Your task to perform on an android device: Open Wikipedia Image 0: 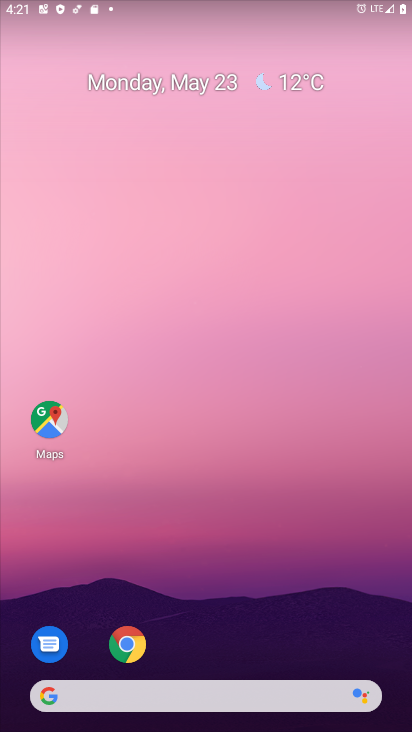
Step 0: click (133, 655)
Your task to perform on an android device: Open Wikipedia Image 1: 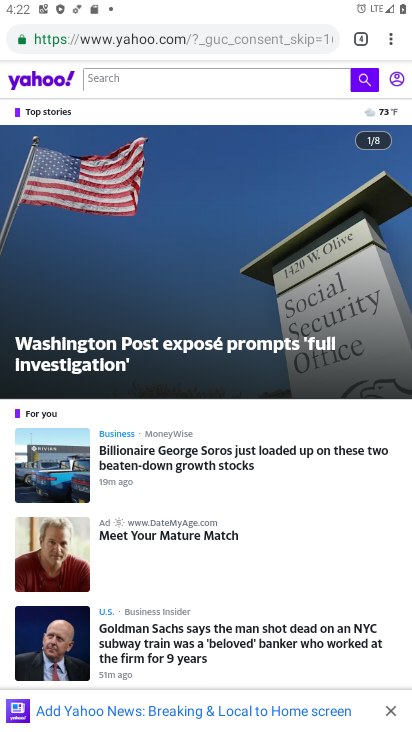
Step 1: click (364, 42)
Your task to perform on an android device: Open Wikipedia Image 2: 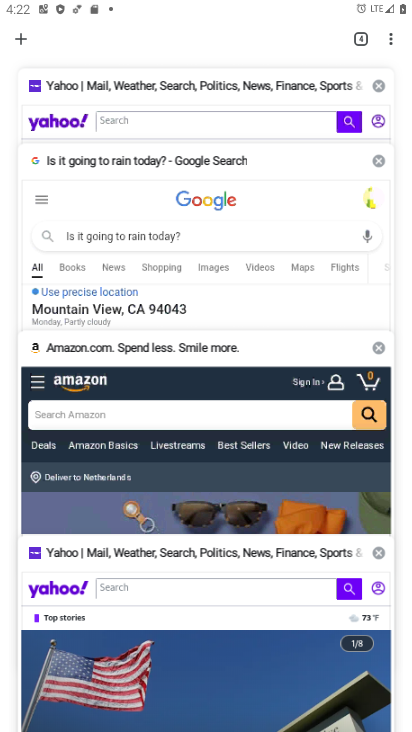
Step 2: click (19, 46)
Your task to perform on an android device: Open Wikipedia Image 3: 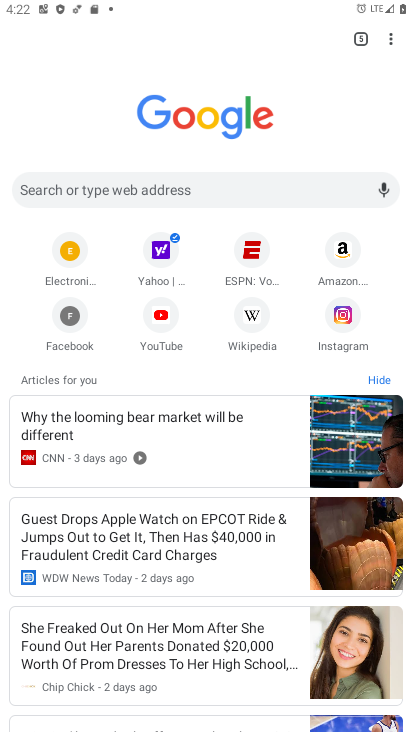
Step 3: click (252, 323)
Your task to perform on an android device: Open Wikipedia Image 4: 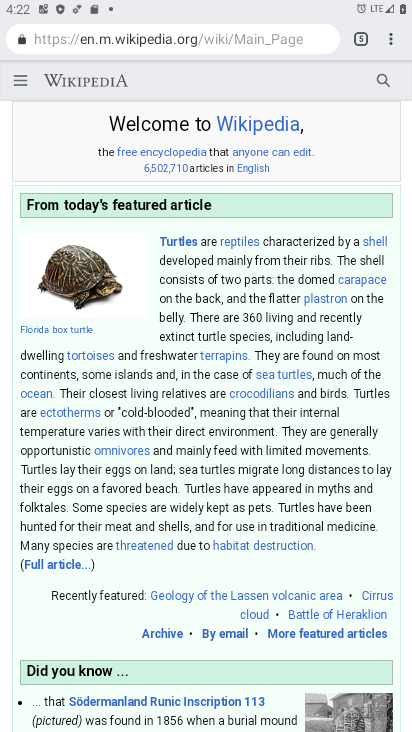
Step 4: task complete